Your task to perform on an android device: Search for vegetarian restaurants on Maps Image 0: 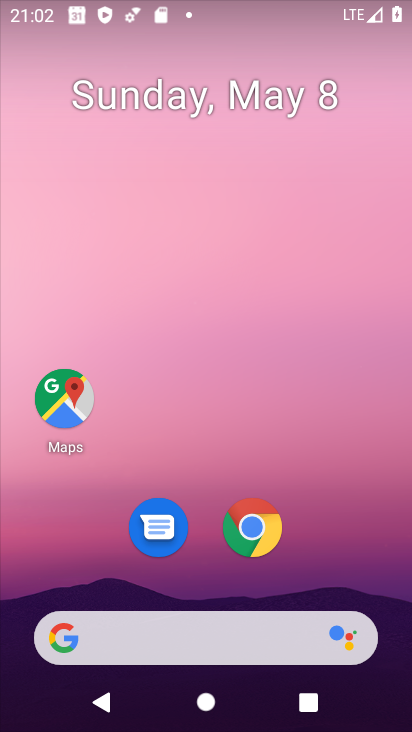
Step 0: click (63, 400)
Your task to perform on an android device: Search for vegetarian restaurants on Maps Image 1: 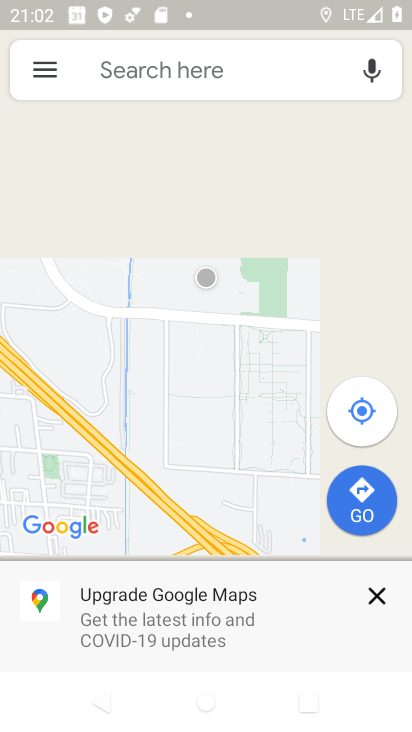
Step 1: click (157, 72)
Your task to perform on an android device: Search for vegetarian restaurants on Maps Image 2: 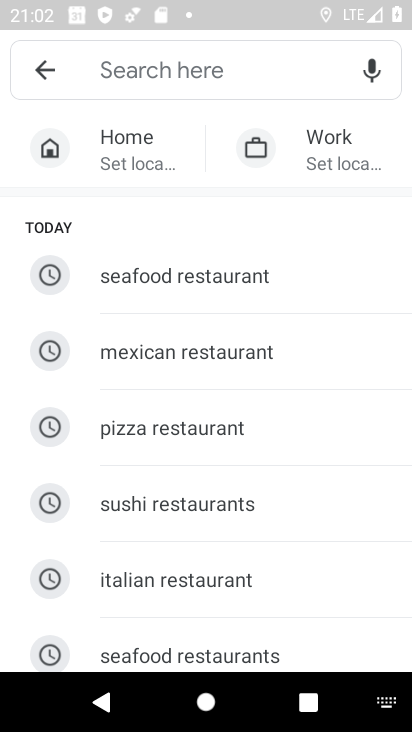
Step 2: drag from (270, 586) to (269, 220)
Your task to perform on an android device: Search for vegetarian restaurants on Maps Image 3: 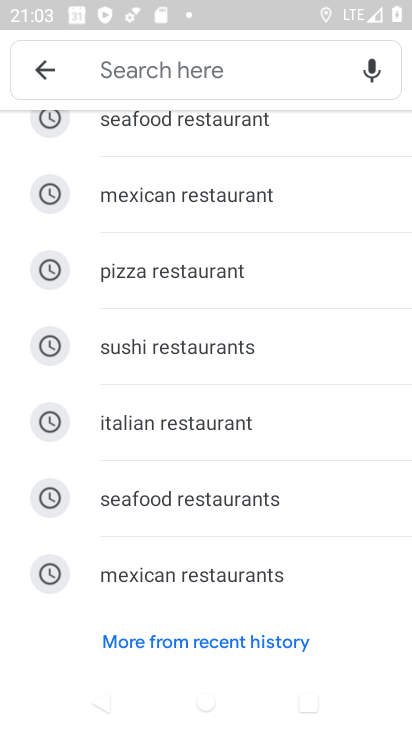
Step 3: click (196, 77)
Your task to perform on an android device: Search for vegetarian restaurants on Maps Image 4: 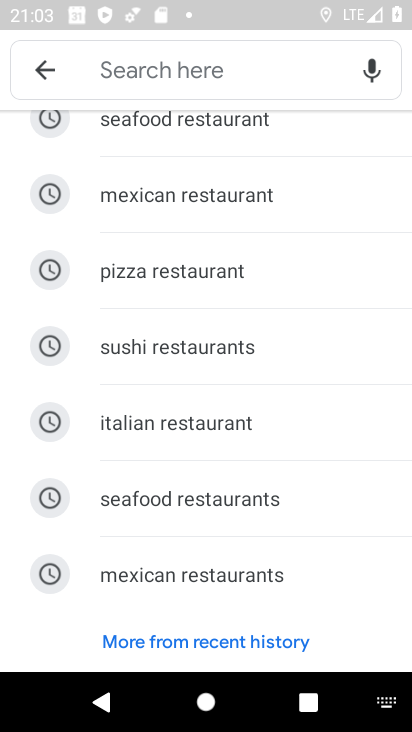
Step 4: type "vegetarian restaurents"
Your task to perform on an android device: Search for vegetarian restaurants on Maps Image 5: 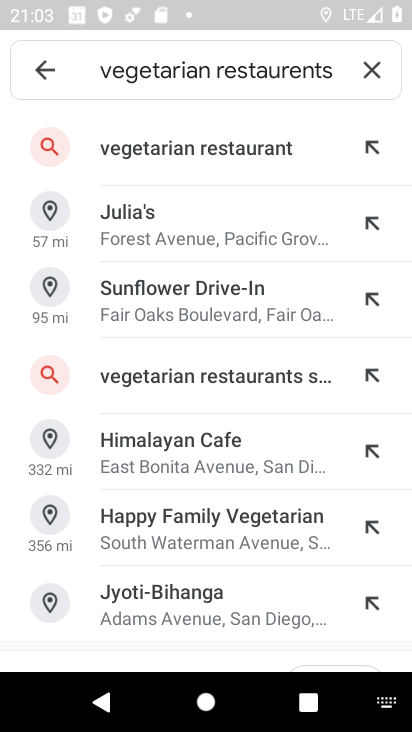
Step 5: click (256, 138)
Your task to perform on an android device: Search for vegetarian restaurants on Maps Image 6: 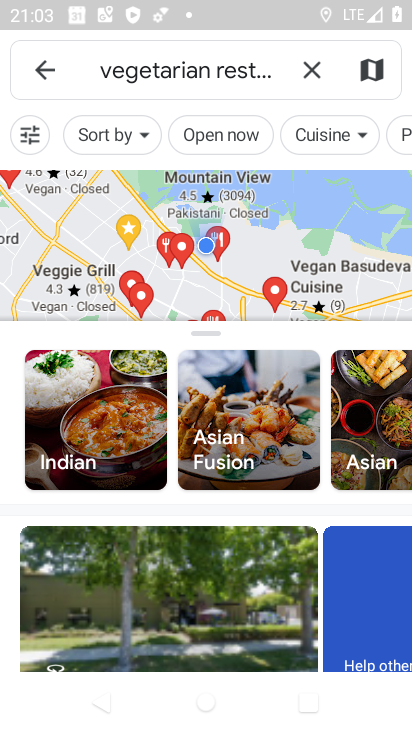
Step 6: task complete